Your task to perform on an android device: Search for "duracell triple a" on newegg.com, select the first entry, add it to the cart, then select checkout. Image 0: 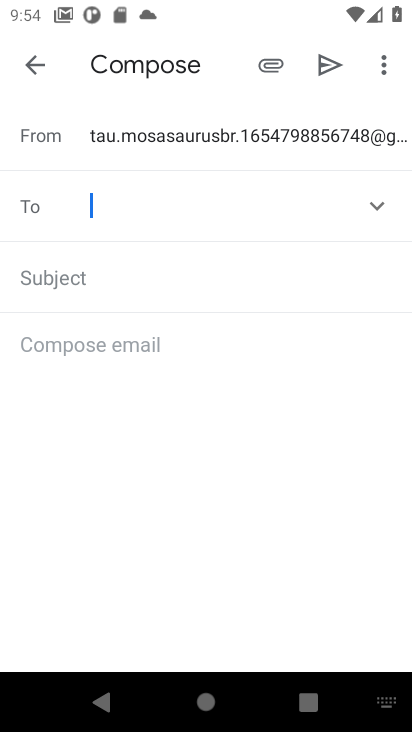
Step 0: press home button
Your task to perform on an android device: Search for "duracell triple a" on newegg.com, select the first entry, add it to the cart, then select checkout. Image 1: 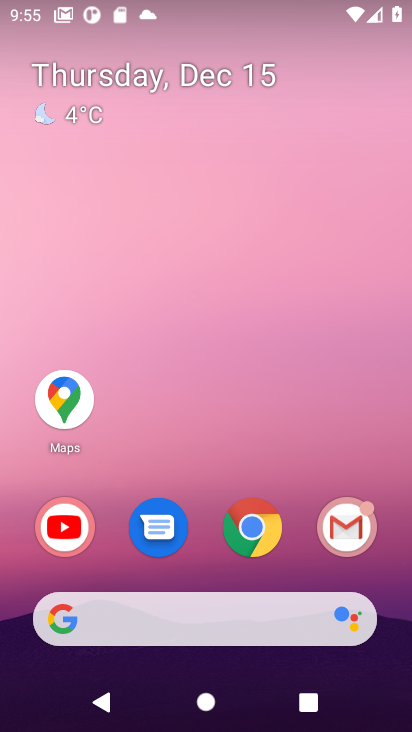
Step 1: click (261, 598)
Your task to perform on an android device: Search for "duracell triple a" on newegg.com, select the first entry, add it to the cart, then select checkout. Image 2: 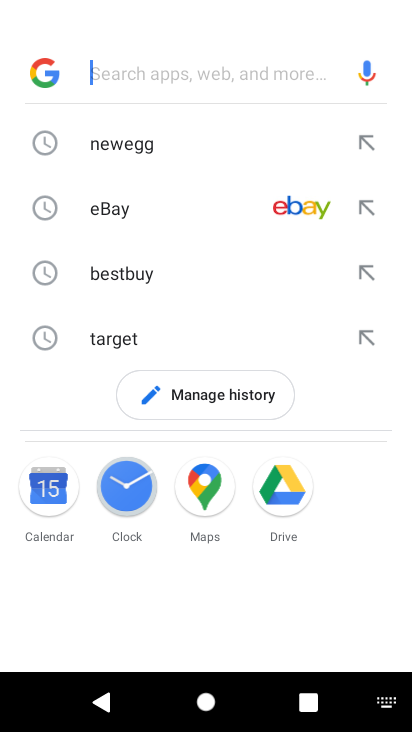
Step 2: click (129, 145)
Your task to perform on an android device: Search for "duracell triple a" on newegg.com, select the first entry, add it to the cart, then select checkout. Image 3: 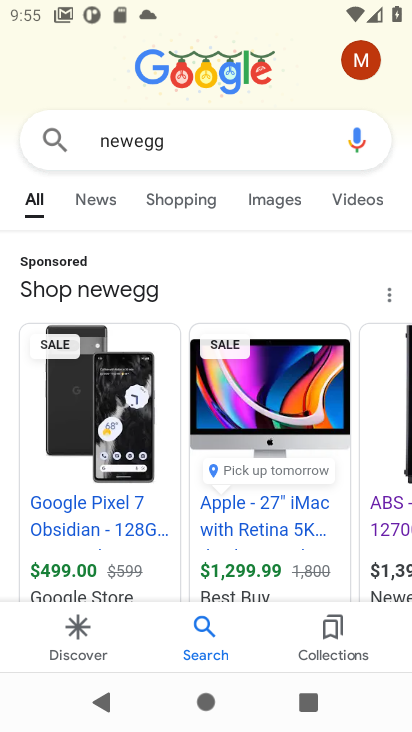
Step 3: click (150, 501)
Your task to perform on an android device: Search for "duracell triple a" on newegg.com, select the first entry, add it to the cart, then select checkout. Image 4: 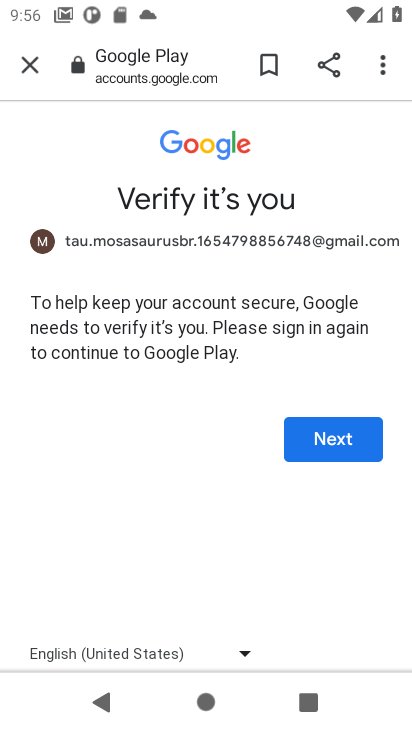
Step 4: click (34, 77)
Your task to perform on an android device: Search for "duracell triple a" on newegg.com, select the first entry, add it to the cart, then select checkout. Image 5: 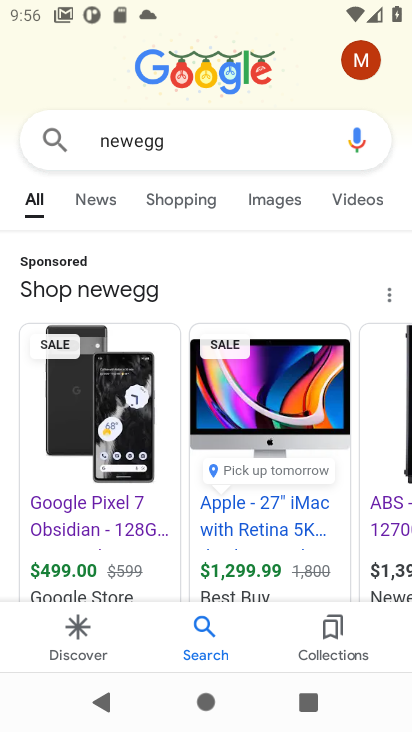
Step 5: click (244, 70)
Your task to perform on an android device: Search for "duracell triple a" on newegg.com, select the first entry, add it to the cart, then select checkout. Image 6: 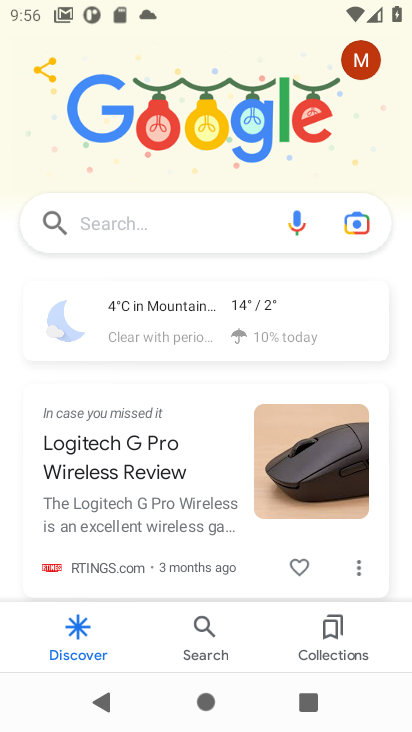
Step 6: click (128, 457)
Your task to perform on an android device: Search for "duracell triple a" on newegg.com, select the first entry, add it to the cart, then select checkout. Image 7: 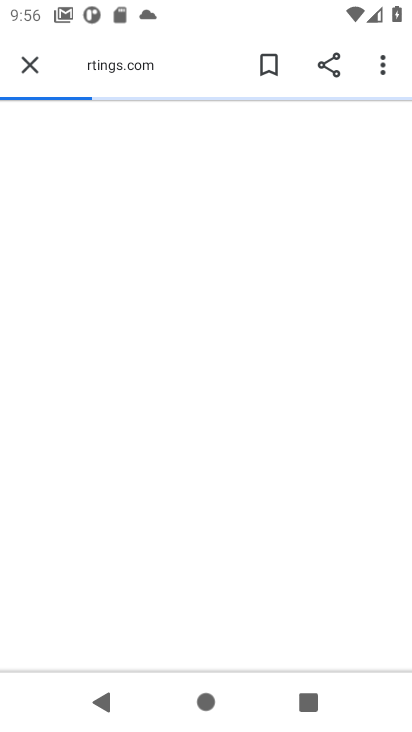
Step 7: task complete